Your task to perform on an android device: install app "Messenger Lite" Image 0: 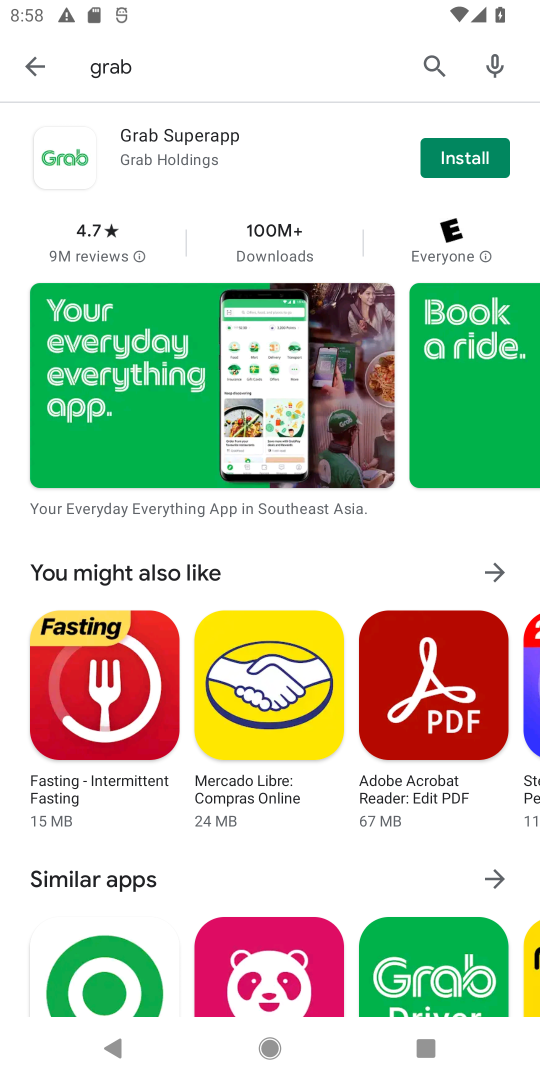
Step 0: click (435, 68)
Your task to perform on an android device: install app "Messenger Lite" Image 1: 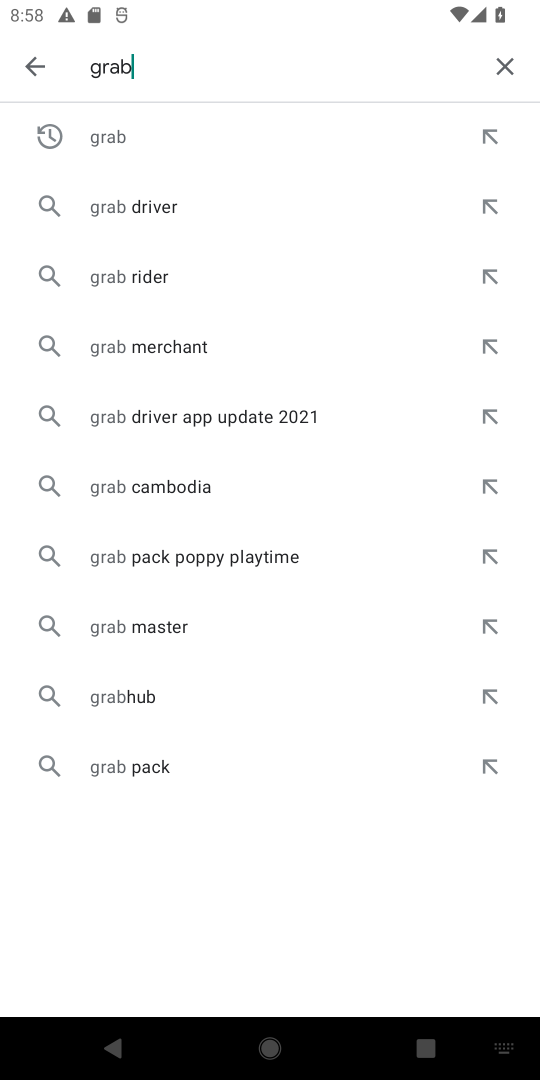
Step 1: click (500, 65)
Your task to perform on an android device: install app "Messenger Lite" Image 2: 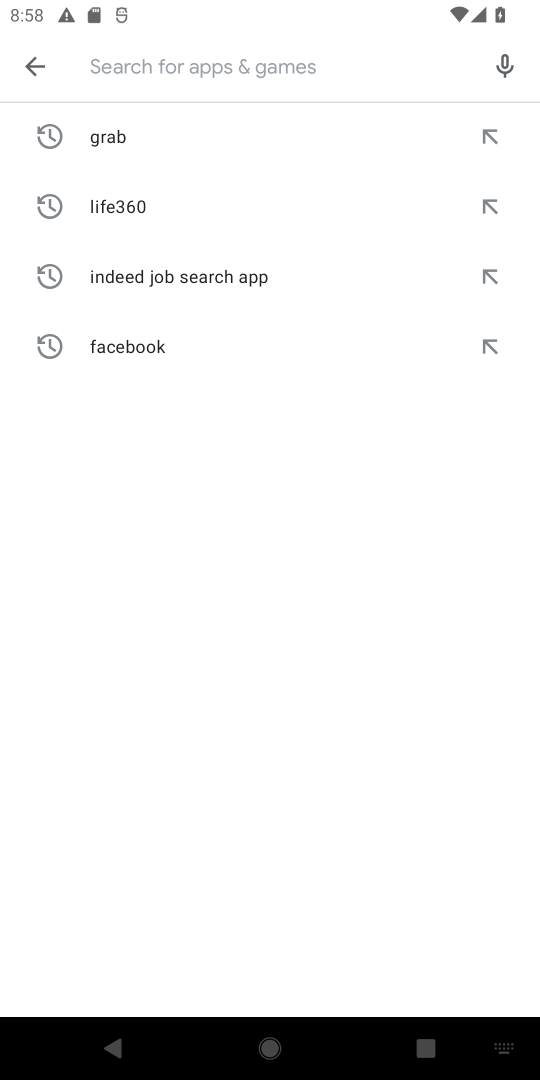
Step 2: type "messenger lite"
Your task to perform on an android device: install app "Messenger Lite" Image 3: 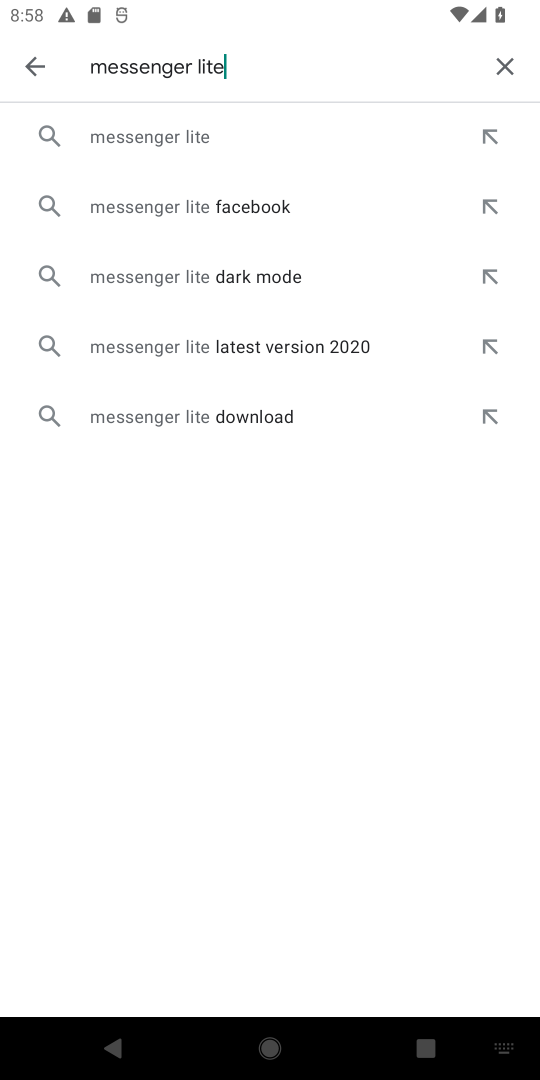
Step 3: click (171, 143)
Your task to perform on an android device: install app "Messenger Lite" Image 4: 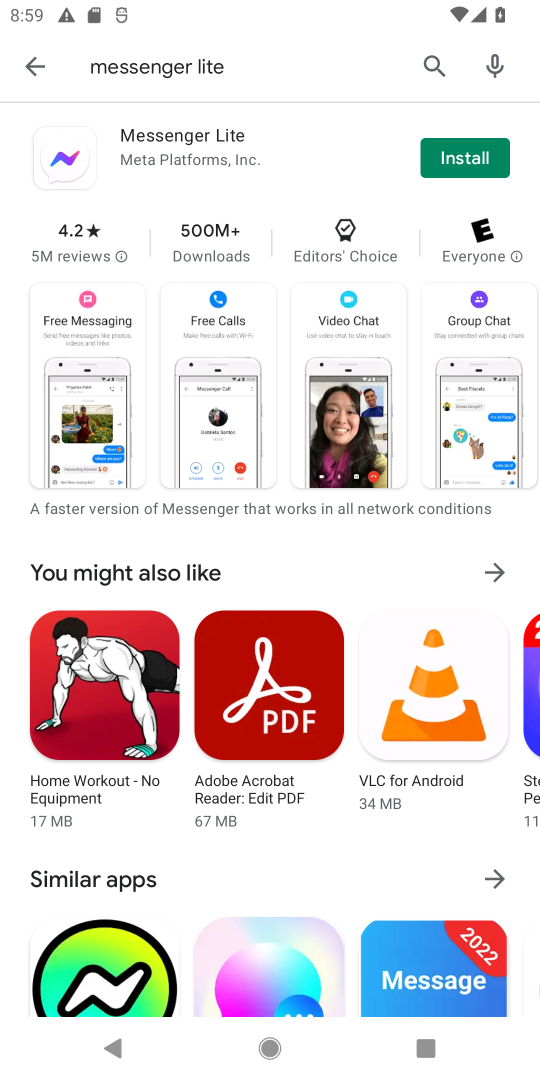
Step 4: click (480, 156)
Your task to perform on an android device: install app "Messenger Lite" Image 5: 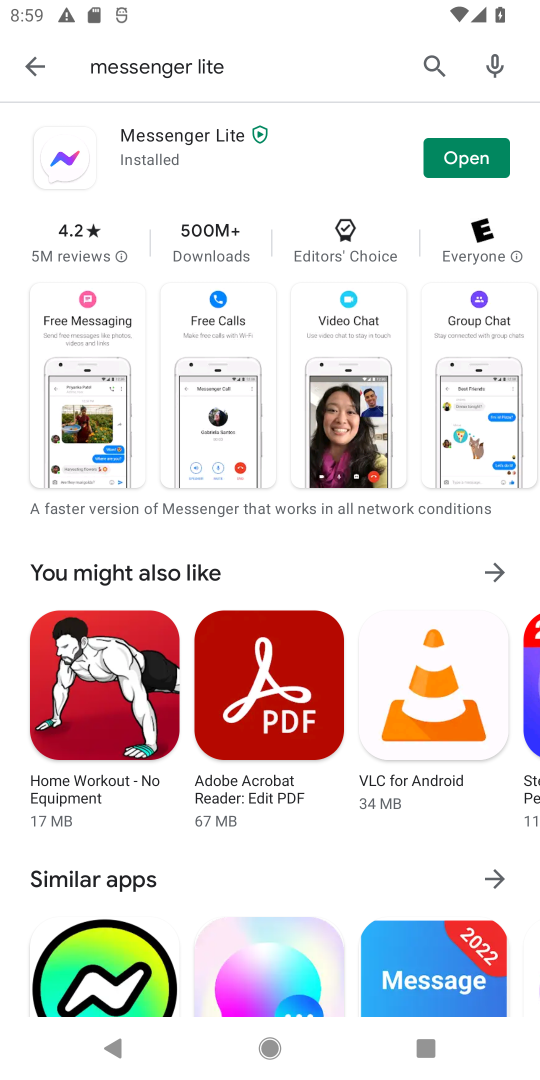
Step 5: task complete